Your task to perform on an android device: Open Android settings Image 0: 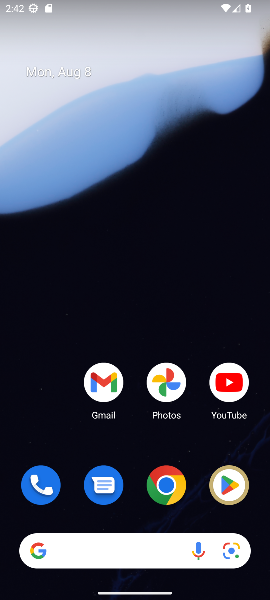
Step 0: drag from (153, 171) to (114, 14)
Your task to perform on an android device: Open Android settings Image 1: 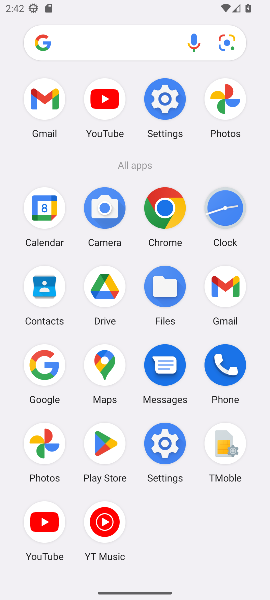
Step 1: click (93, 43)
Your task to perform on an android device: Open Android settings Image 2: 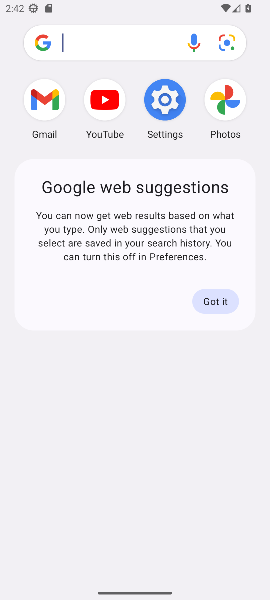
Step 2: drag from (117, 336) to (95, 110)
Your task to perform on an android device: Open Android settings Image 3: 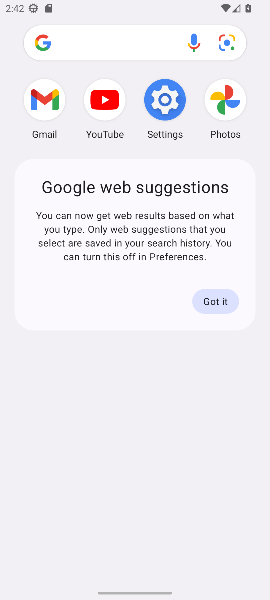
Step 3: click (169, 109)
Your task to perform on an android device: Open Android settings Image 4: 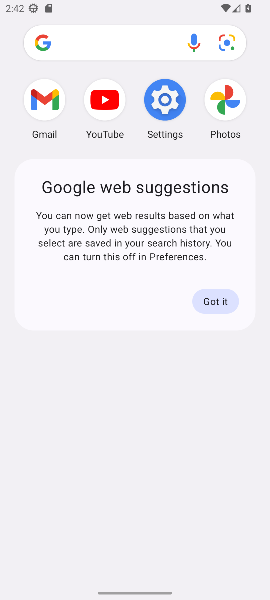
Step 4: click (169, 108)
Your task to perform on an android device: Open Android settings Image 5: 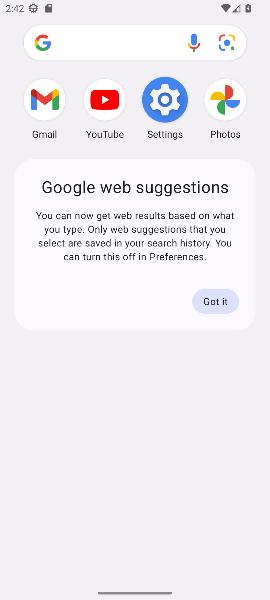
Step 5: click (169, 108)
Your task to perform on an android device: Open Android settings Image 6: 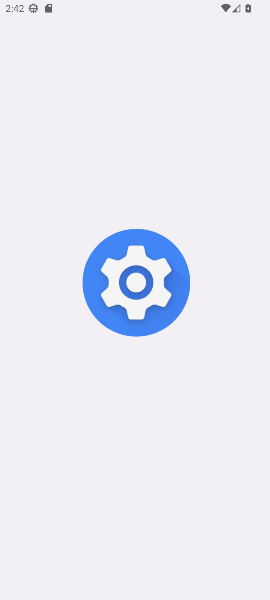
Step 6: click (170, 108)
Your task to perform on an android device: Open Android settings Image 7: 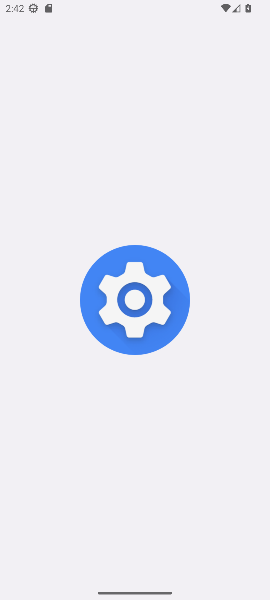
Step 7: click (170, 108)
Your task to perform on an android device: Open Android settings Image 8: 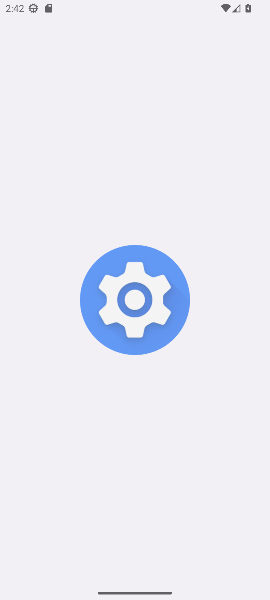
Step 8: click (170, 108)
Your task to perform on an android device: Open Android settings Image 9: 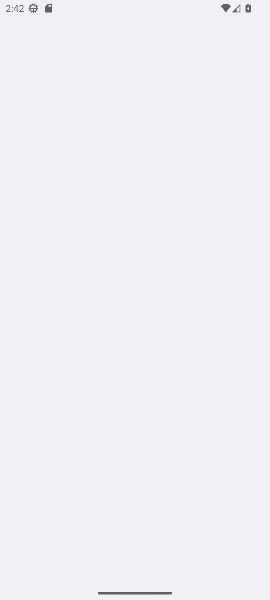
Step 9: click (167, 103)
Your task to perform on an android device: Open Android settings Image 10: 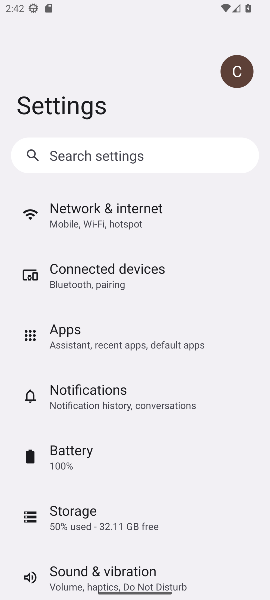
Step 10: click (167, 103)
Your task to perform on an android device: Open Android settings Image 11: 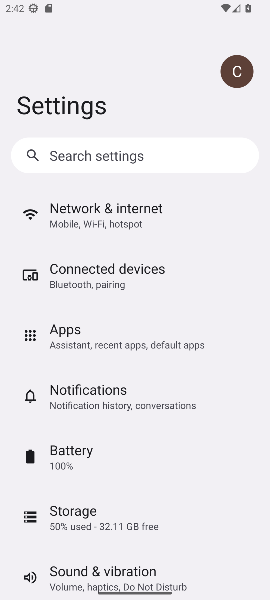
Step 11: task complete